Your task to perform on an android device: turn on wifi Image 0: 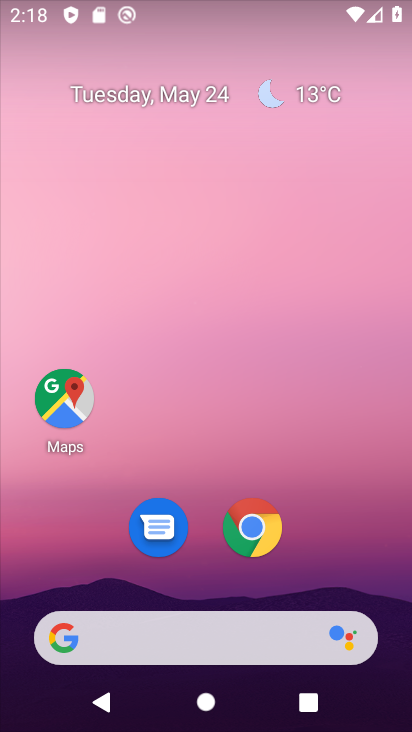
Step 0: drag from (195, 595) to (256, 60)
Your task to perform on an android device: turn on wifi Image 1: 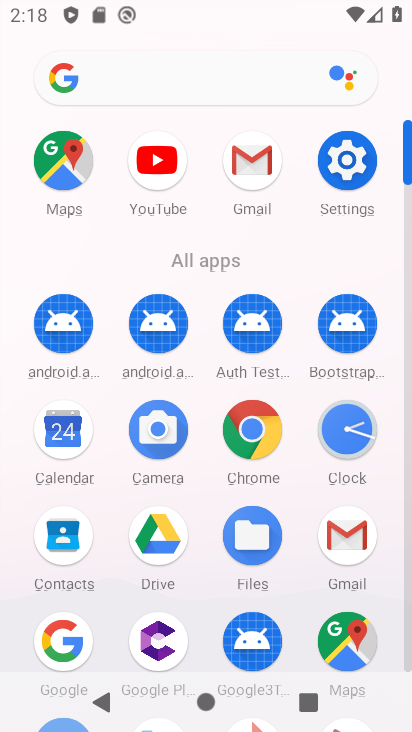
Step 1: click (345, 160)
Your task to perform on an android device: turn on wifi Image 2: 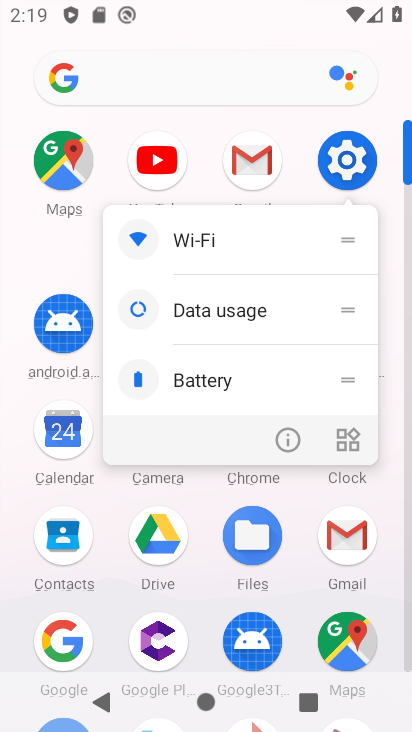
Step 2: click (346, 164)
Your task to perform on an android device: turn on wifi Image 3: 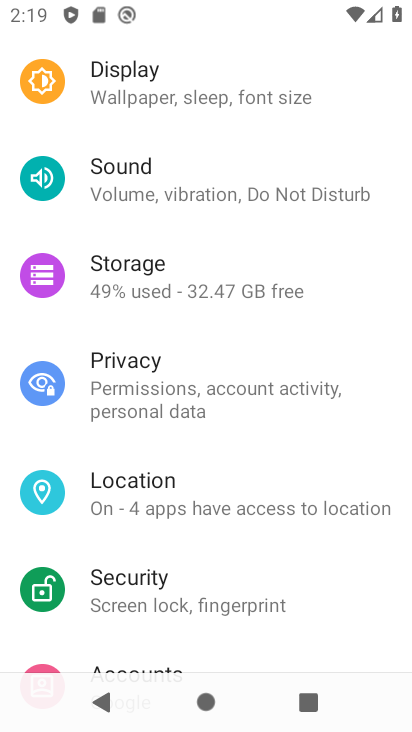
Step 3: drag from (145, 260) to (235, 523)
Your task to perform on an android device: turn on wifi Image 4: 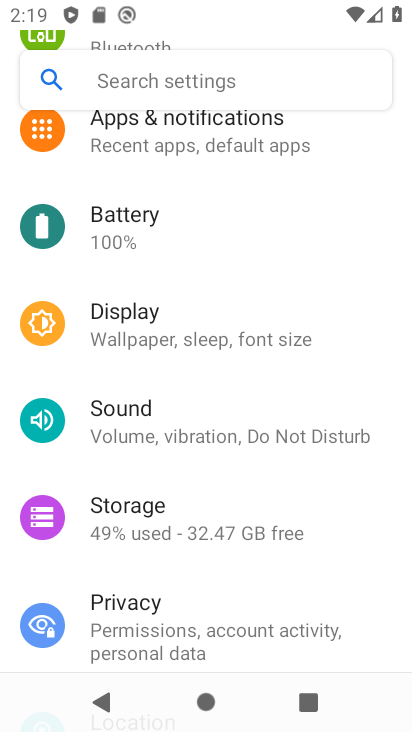
Step 4: drag from (212, 265) to (276, 518)
Your task to perform on an android device: turn on wifi Image 5: 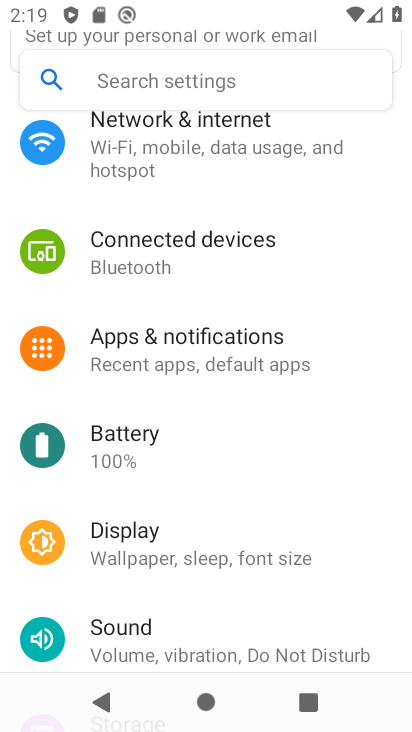
Step 5: drag from (223, 253) to (295, 493)
Your task to perform on an android device: turn on wifi Image 6: 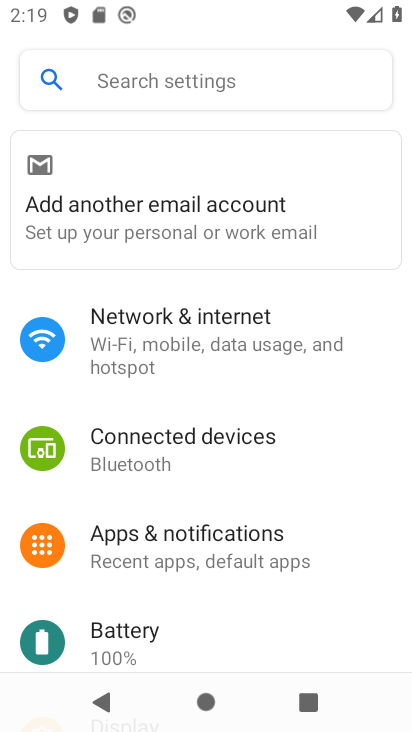
Step 6: click (171, 339)
Your task to perform on an android device: turn on wifi Image 7: 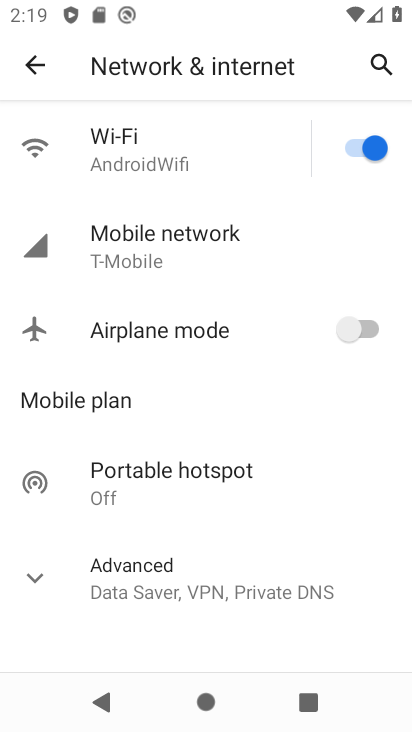
Step 7: task complete